Your task to perform on an android device: Open sound settings Image 0: 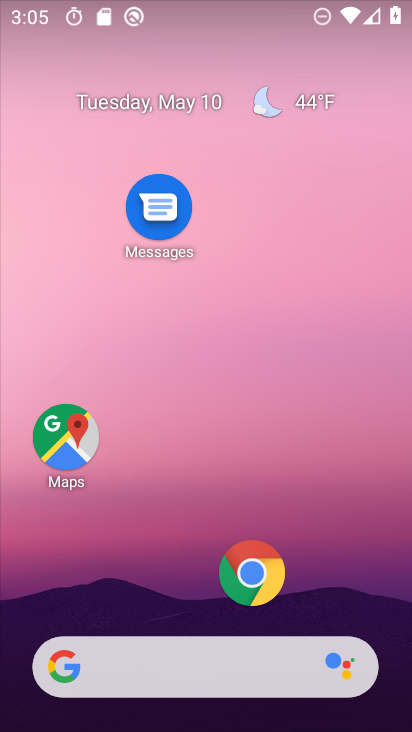
Step 0: drag from (158, 597) to (216, 232)
Your task to perform on an android device: Open sound settings Image 1: 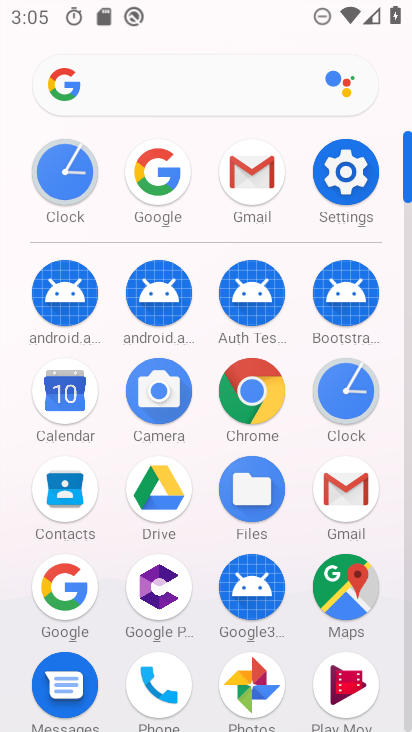
Step 1: click (352, 179)
Your task to perform on an android device: Open sound settings Image 2: 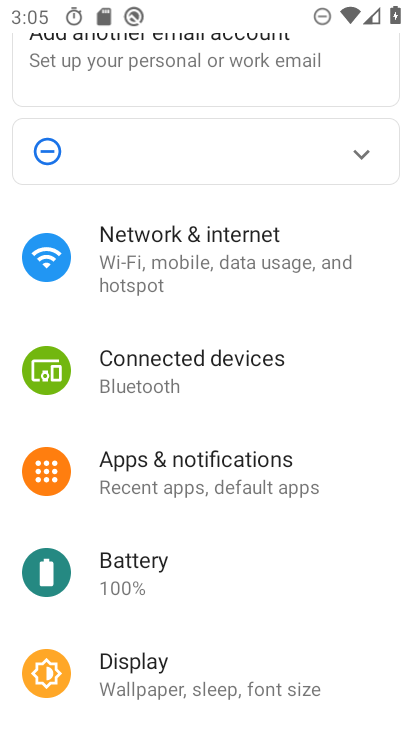
Step 2: drag from (175, 674) to (276, 305)
Your task to perform on an android device: Open sound settings Image 3: 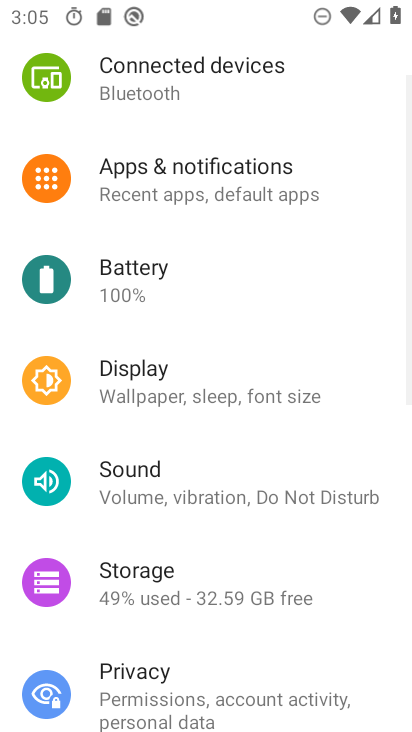
Step 3: click (170, 480)
Your task to perform on an android device: Open sound settings Image 4: 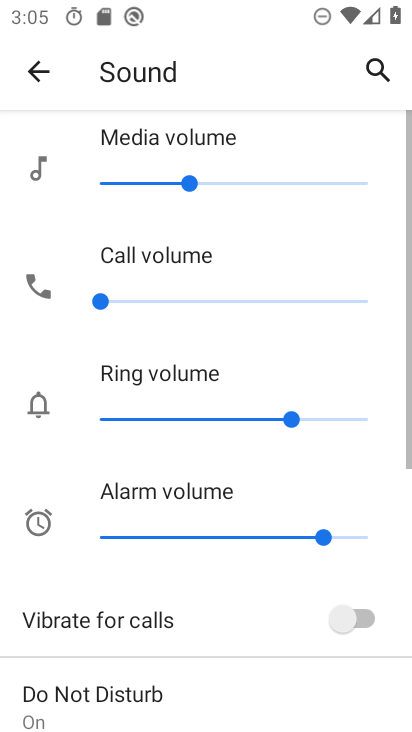
Step 4: task complete